Your task to perform on an android device: When is my next meeting? Image 0: 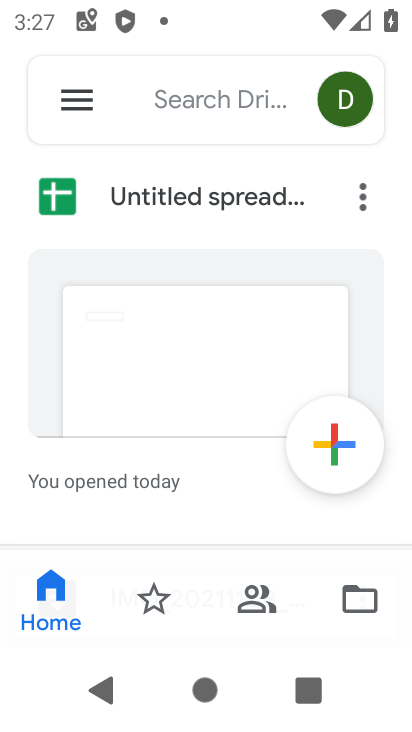
Step 0: task complete